Your task to perform on an android device: turn on bluetooth scan Image 0: 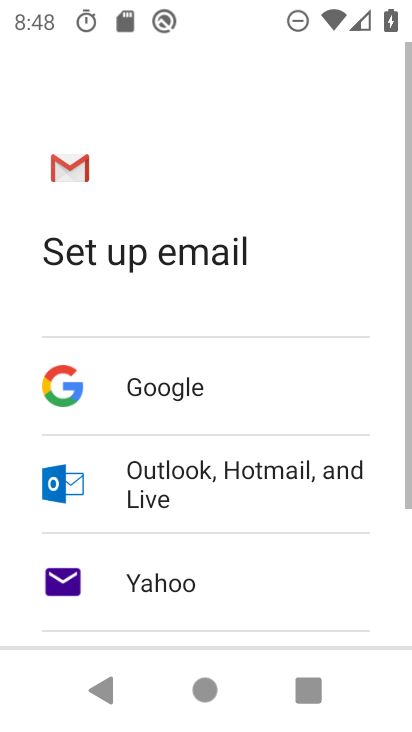
Step 0: press home button
Your task to perform on an android device: turn on bluetooth scan Image 1: 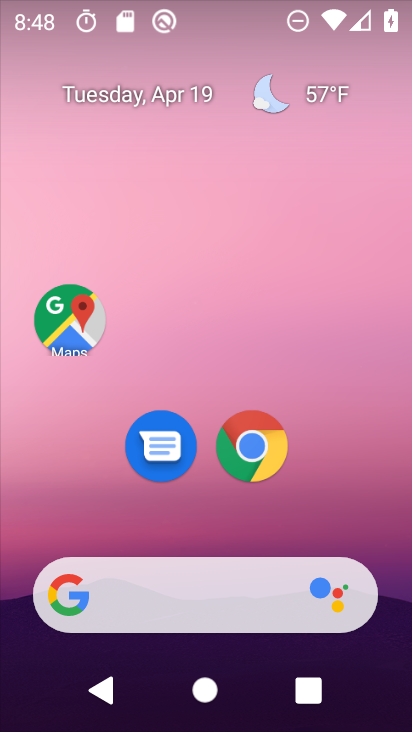
Step 1: drag from (338, 450) to (281, 66)
Your task to perform on an android device: turn on bluetooth scan Image 2: 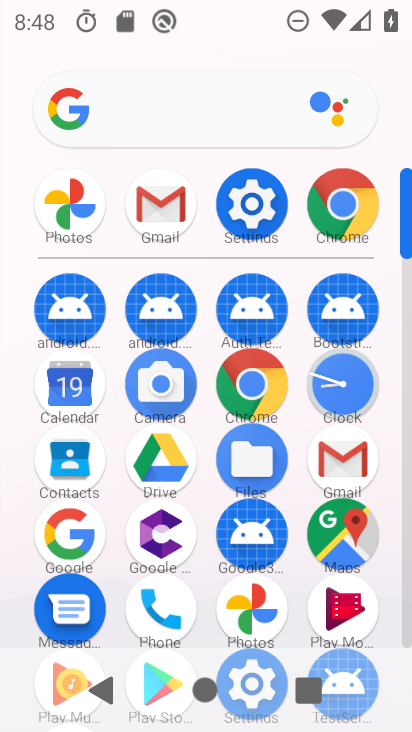
Step 2: click (263, 211)
Your task to perform on an android device: turn on bluetooth scan Image 3: 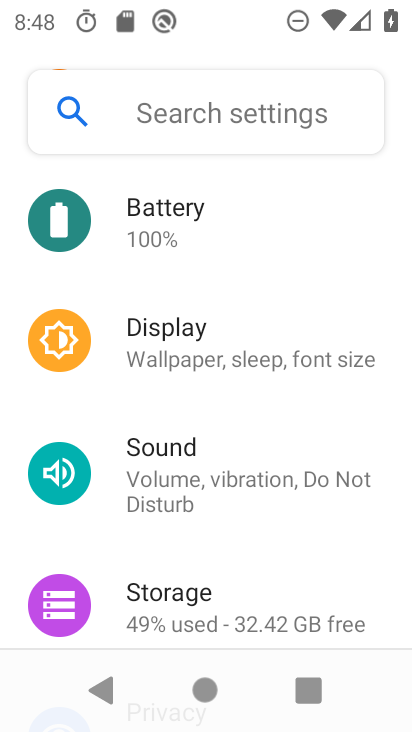
Step 3: drag from (205, 590) to (198, 275)
Your task to perform on an android device: turn on bluetooth scan Image 4: 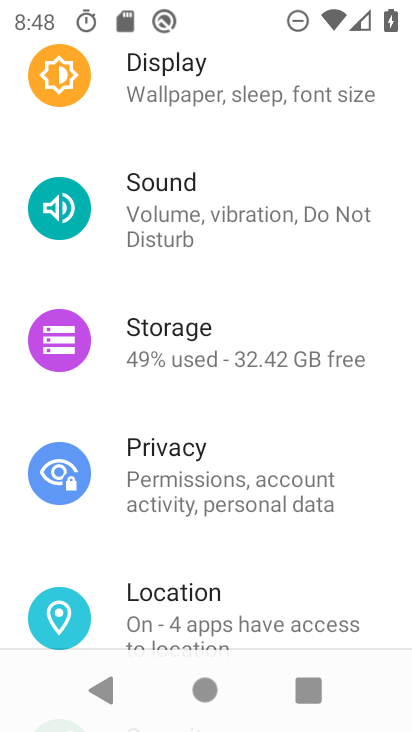
Step 4: click (166, 602)
Your task to perform on an android device: turn on bluetooth scan Image 5: 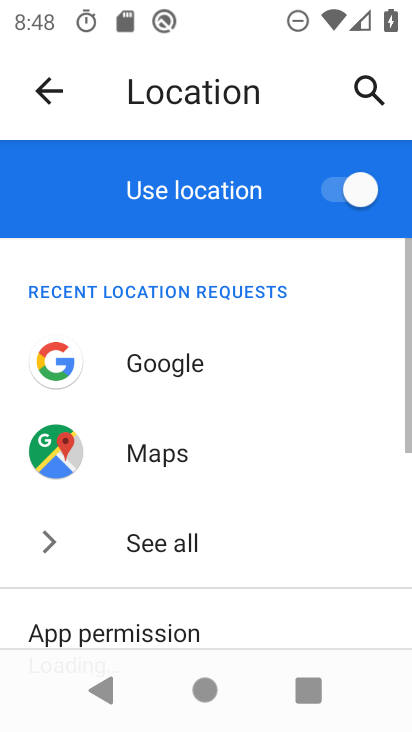
Step 5: drag from (166, 595) to (160, 231)
Your task to perform on an android device: turn on bluetooth scan Image 6: 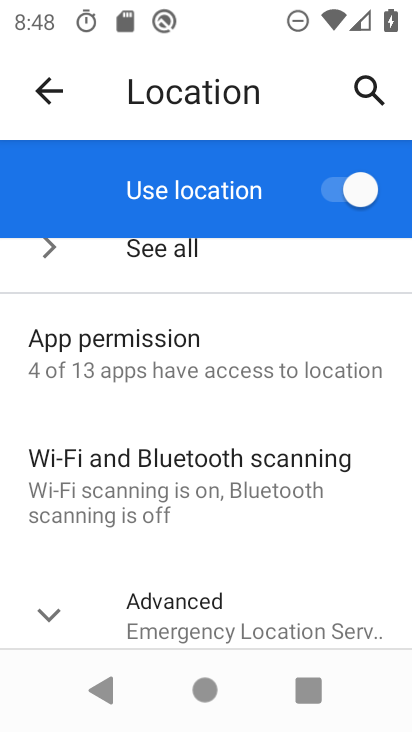
Step 6: click (140, 459)
Your task to perform on an android device: turn on bluetooth scan Image 7: 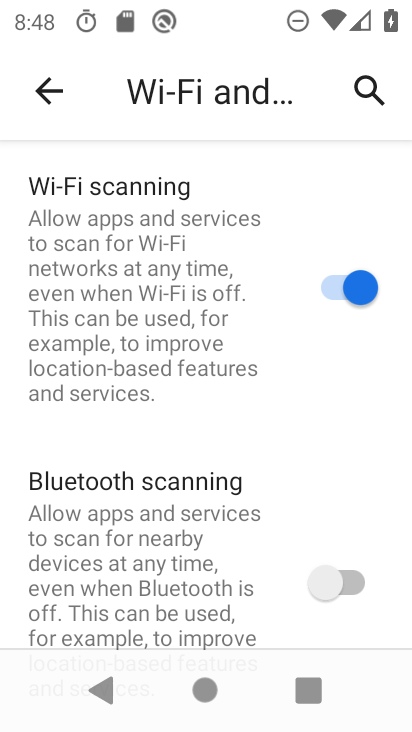
Step 7: click (341, 586)
Your task to perform on an android device: turn on bluetooth scan Image 8: 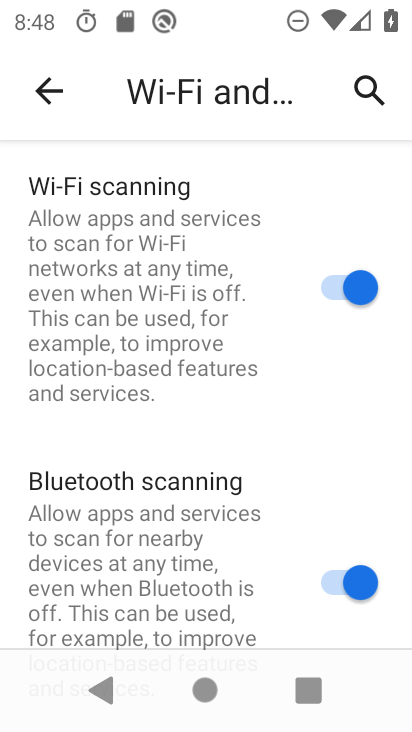
Step 8: task complete